Your task to perform on an android device: Go to privacy settings Image 0: 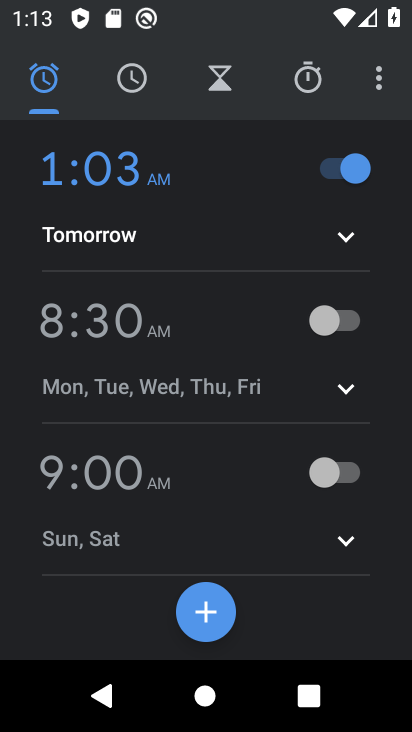
Step 0: click (396, 88)
Your task to perform on an android device: Go to privacy settings Image 1: 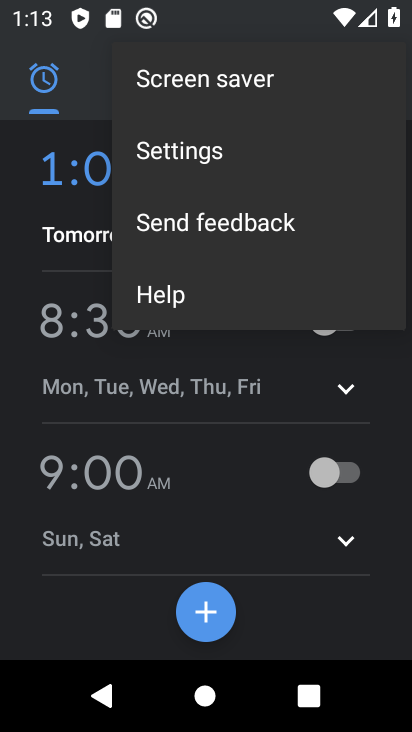
Step 1: press home button
Your task to perform on an android device: Go to privacy settings Image 2: 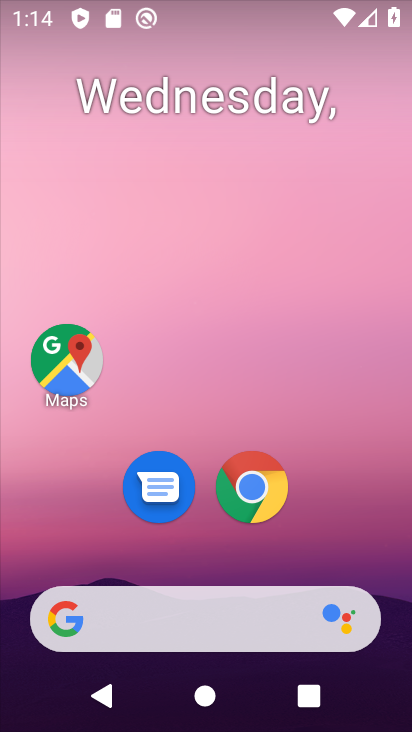
Step 2: click (281, 493)
Your task to perform on an android device: Go to privacy settings Image 3: 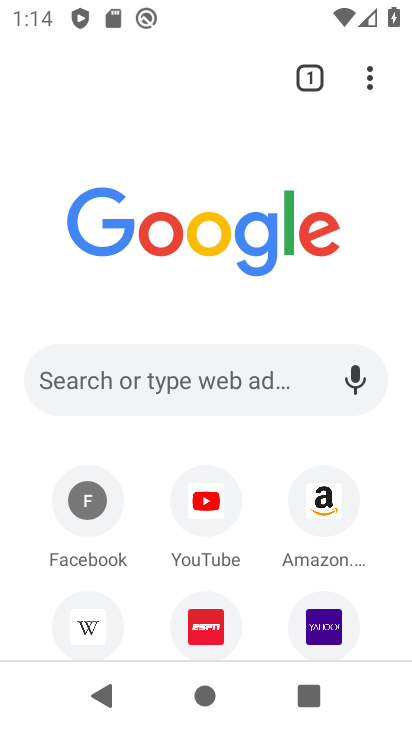
Step 3: click (368, 71)
Your task to perform on an android device: Go to privacy settings Image 4: 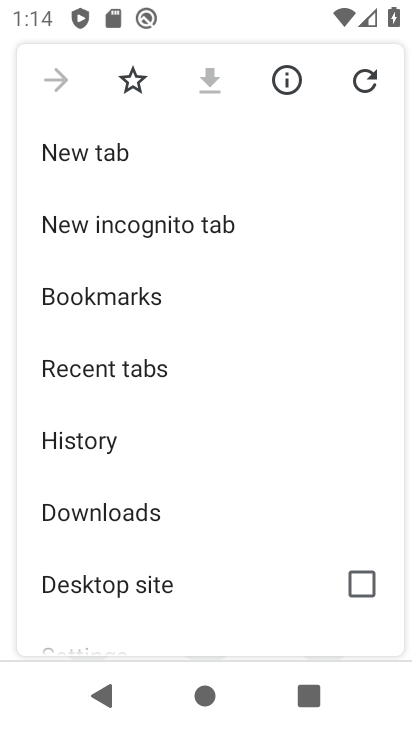
Step 4: drag from (196, 538) to (205, 241)
Your task to perform on an android device: Go to privacy settings Image 5: 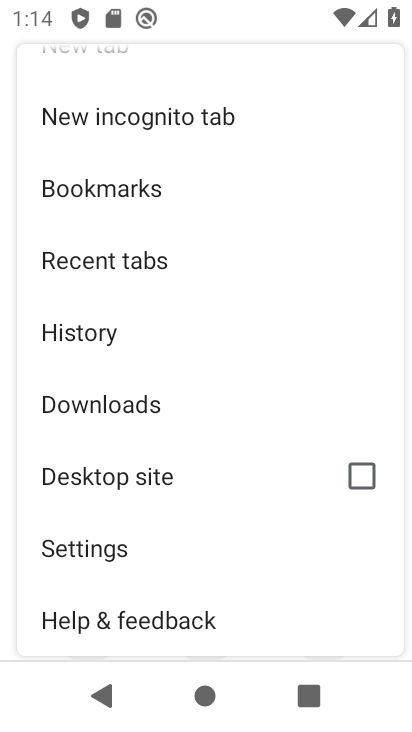
Step 5: click (183, 545)
Your task to perform on an android device: Go to privacy settings Image 6: 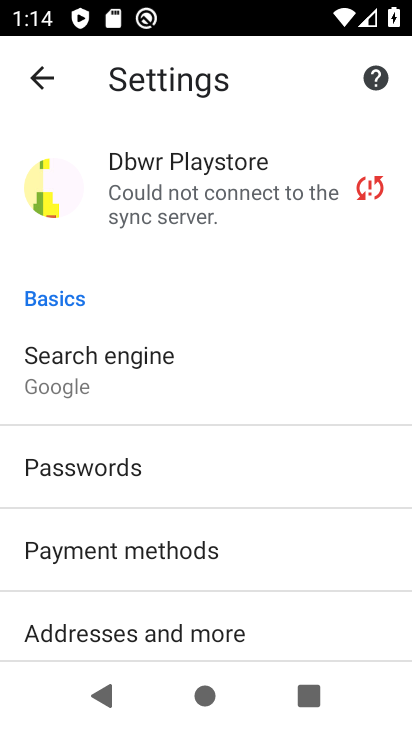
Step 6: drag from (183, 545) to (230, 197)
Your task to perform on an android device: Go to privacy settings Image 7: 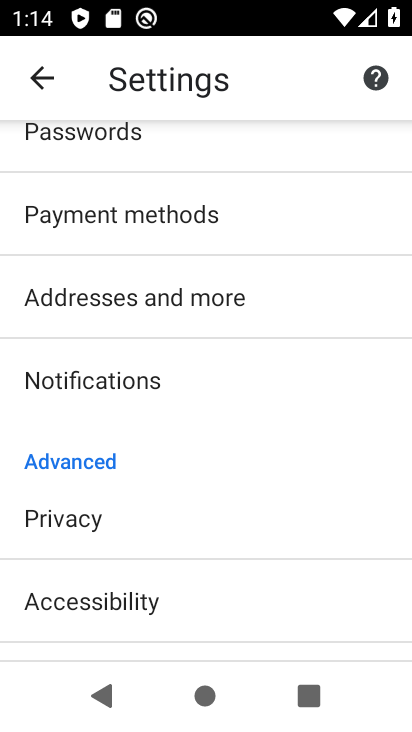
Step 7: click (239, 521)
Your task to perform on an android device: Go to privacy settings Image 8: 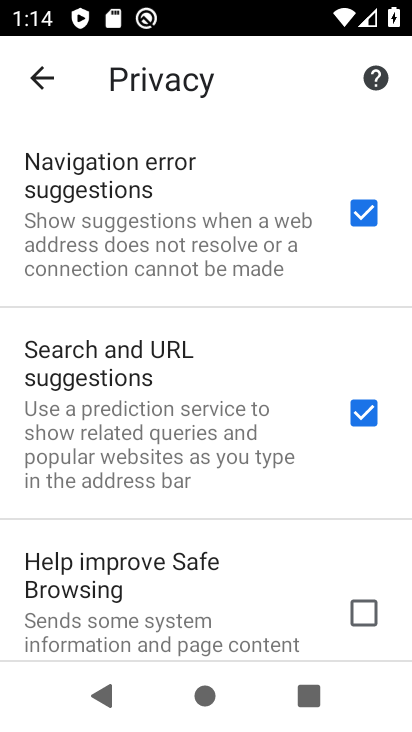
Step 8: task complete